Your task to perform on an android device: turn on sleep mode Image 0: 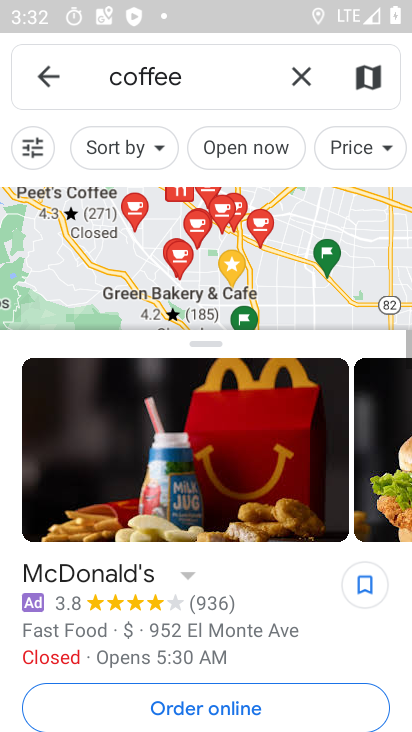
Step 0: press home button
Your task to perform on an android device: turn on sleep mode Image 1: 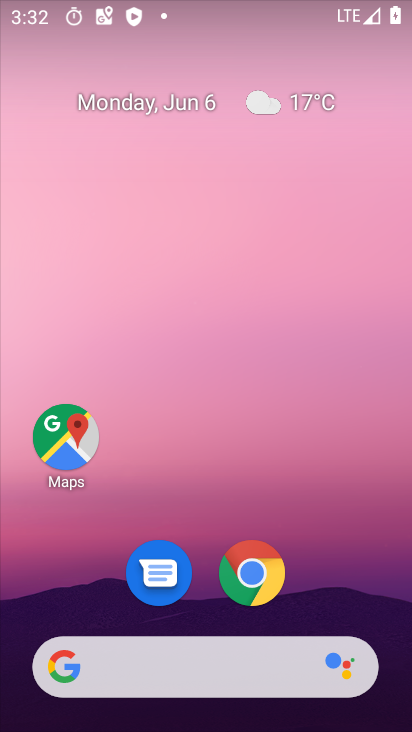
Step 1: drag from (358, 589) to (357, 213)
Your task to perform on an android device: turn on sleep mode Image 2: 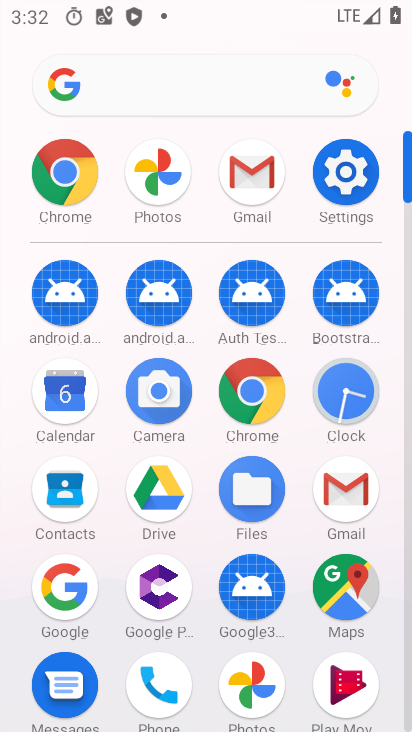
Step 2: click (350, 185)
Your task to perform on an android device: turn on sleep mode Image 3: 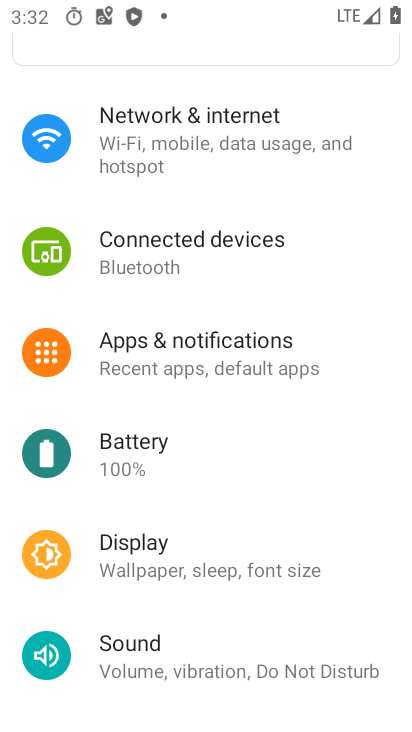
Step 3: click (302, 579)
Your task to perform on an android device: turn on sleep mode Image 4: 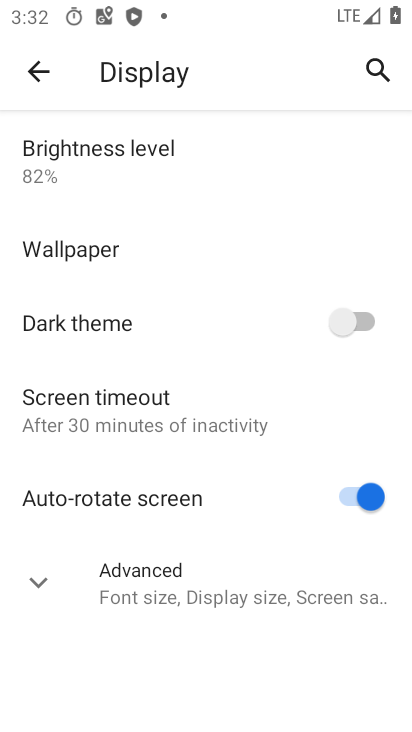
Step 4: click (283, 598)
Your task to perform on an android device: turn on sleep mode Image 5: 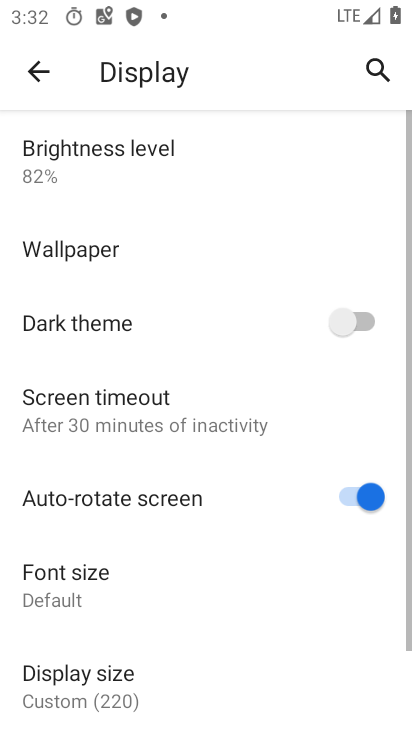
Step 5: task complete